Your task to perform on an android device: open a bookmark in the chrome app Image 0: 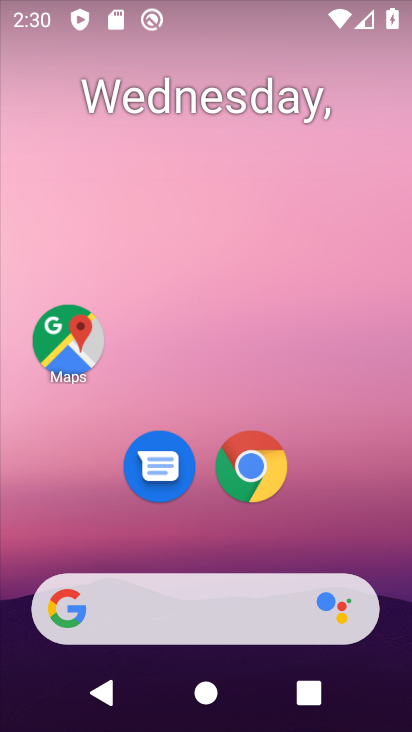
Step 0: click (249, 467)
Your task to perform on an android device: open a bookmark in the chrome app Image 1: 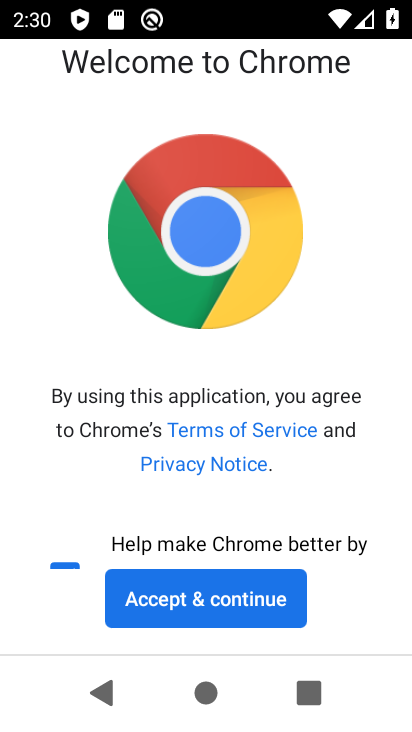
Step 1: click (195, 594)
Your task to perform on an android device: open a bookmark in the chrome app Image 2: 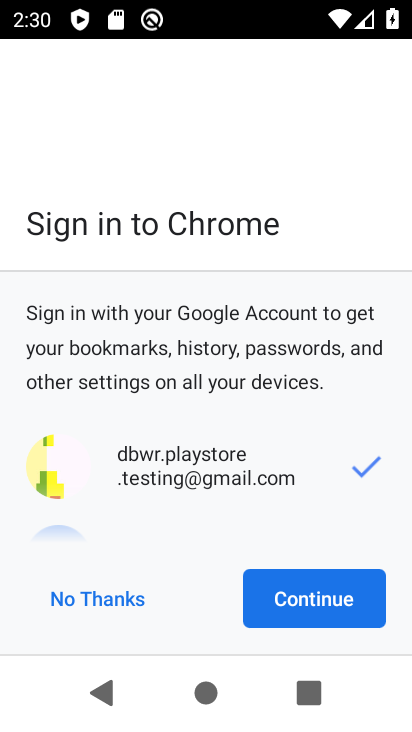
Step 2: click (312, 597)
Your task to perform on an android device: open a bookmark in the chrome app Image 3: 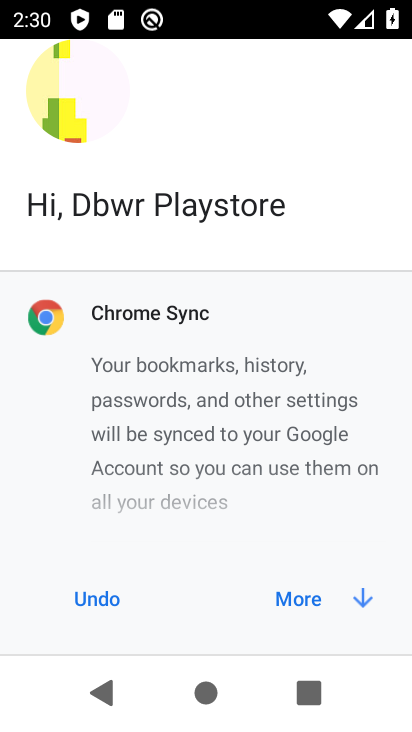
Step 3: click (305, 600)
Your task to perform on an android device: open a bookmark in the chrome app Image 4: 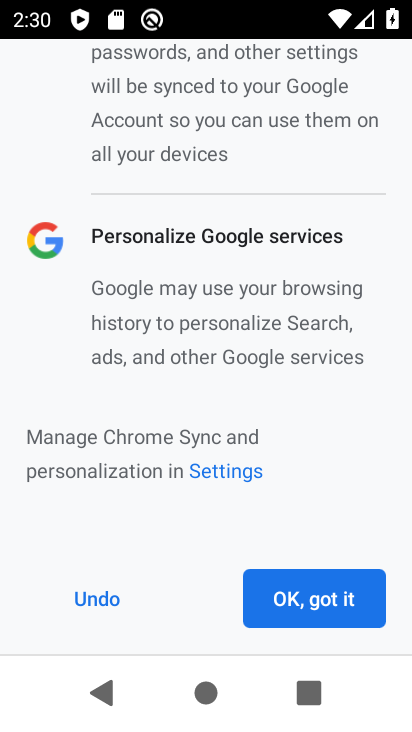
Step 4: click (305, 600)
Your task to perform on an android device: open a bookmark in the chrome app Image 5: 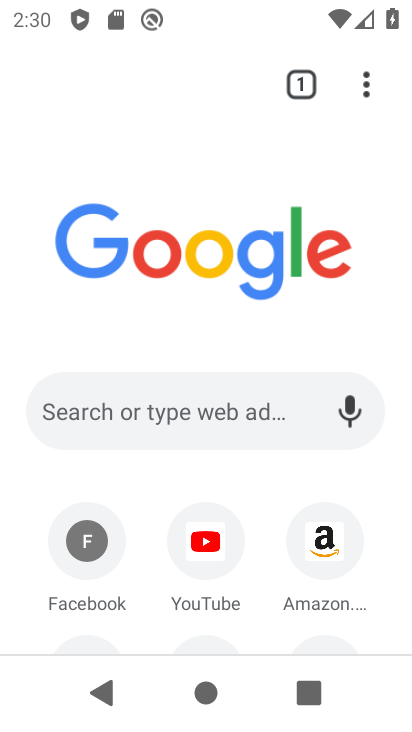
Step 5: click (365, 92)
Your task to perform on an android device: open a bookmark in the chrome app Image 6: 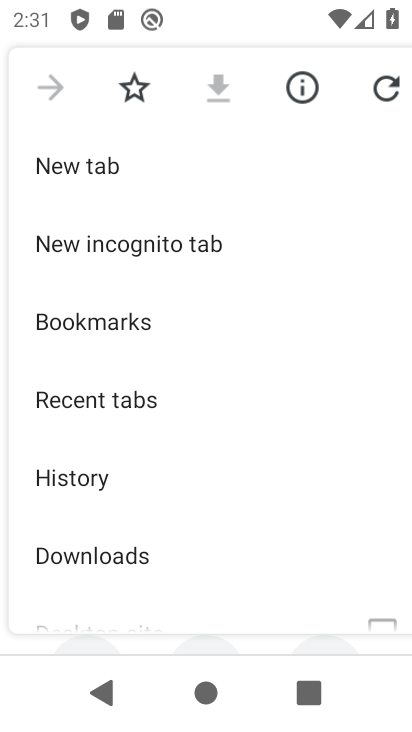
Step 6: click (108, 320)
Your task to perform on an android device: open a bookmark in the chrome app Image 7: 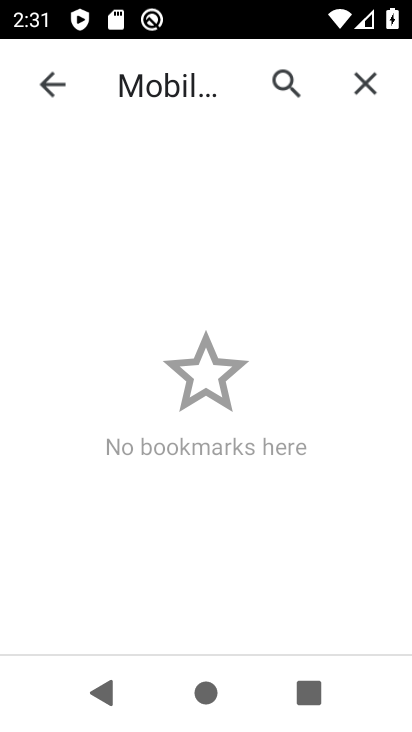
Step 7: task complete